Your task to perform on an android device: Open Google Image 0: 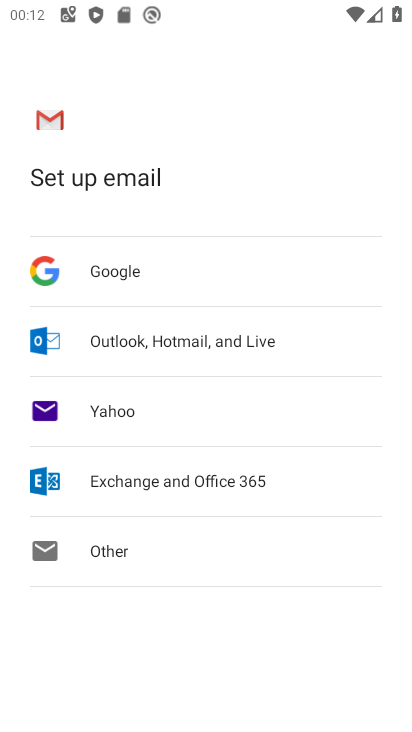
Step 0: press home button
Your task to perform on an android device: Open Google Image 1: 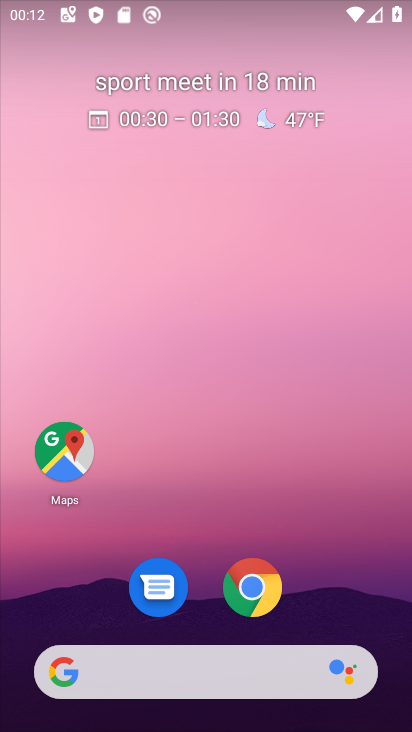
Step 1: drag from (389, 587) to (375, 356)
Your task to perform on an android device: Open Google Image 2: 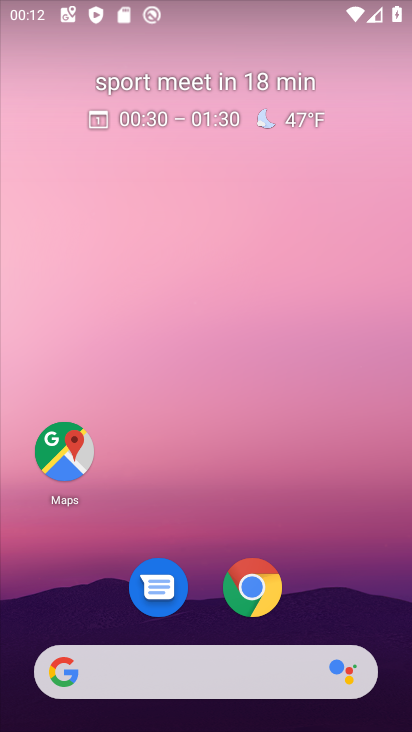
Step 2: drag from (381, 282) to (390, 91)
Your task to perform on an android device: Open Google Image 3: 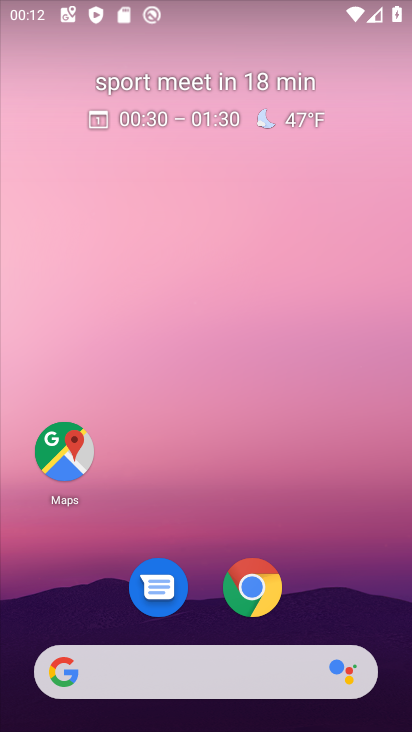
Step 3: drag from (395, 666) to (362, 224)
Your task to perform on an android device: Open Google Image 4: 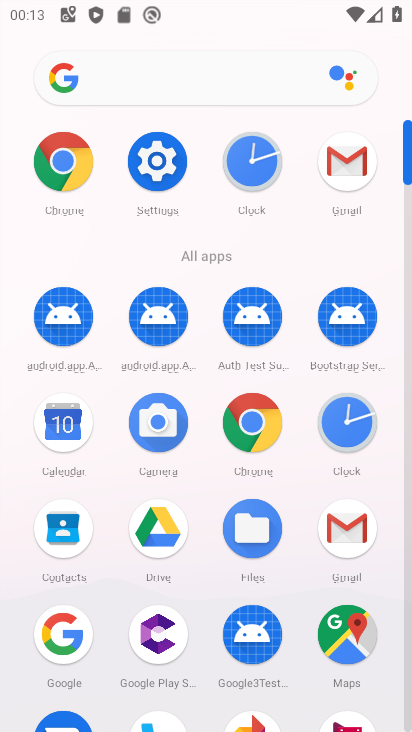
Step 4: click (73, 643)
Your task to perform on an android device: Open Google Image 5: 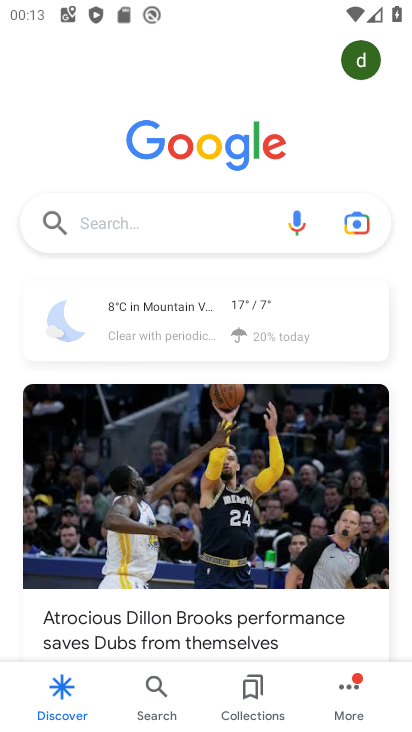
Step 5: task complete